Your task to perform on an android device: View the shopping cart on walmart.com. Image 0: 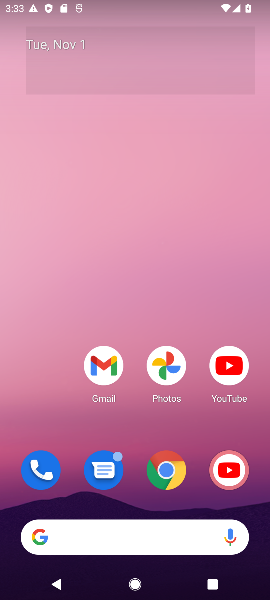
Step 0: click (168, 476)
Your task to perform on an android device: View the shopping cart on walmart.com. Image 1: 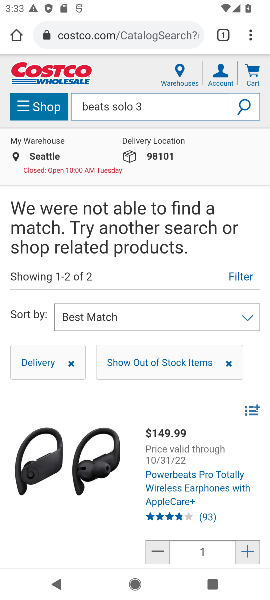
Step 1: click (153, 34)
Your task to perform on an android device: View the shopping cart on walmart.com. Image 2: 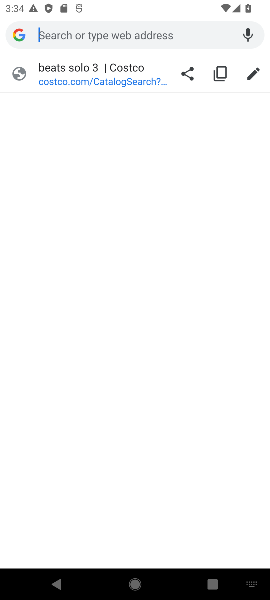
Step 2: type "walmart"
Your task to perform on an android device: View the shopping cart on walmart.com. Image 3: 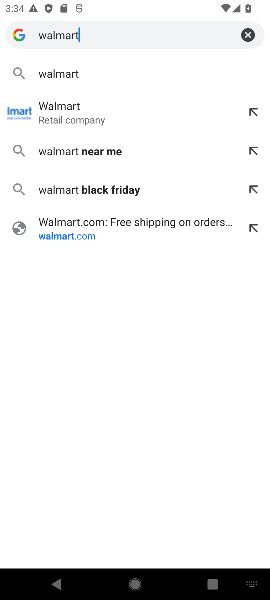
Step 3: click (79, 72)
Your task to perform on an android device: View the shopping cart on walmart.com. Image 4: 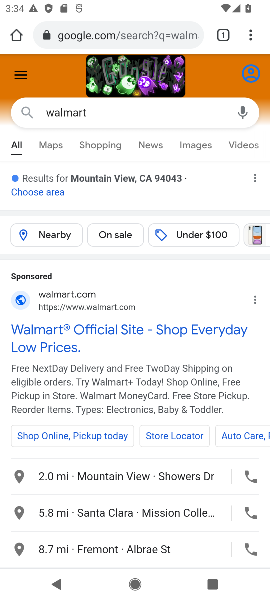
Step 4: drag from (107, 360) to (10, 113)
Your task to perform on an android device: View the shopping cart on walmart.com. Image 5: 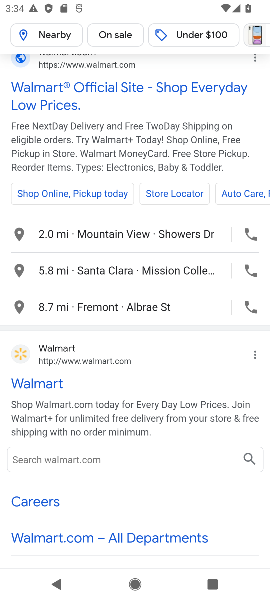
Step 5: click (36, 383)
Your task to perform on an android device: View the shopping cart on walmart.com. Image 6: 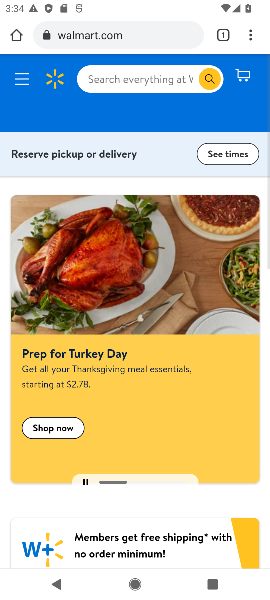
Step 6: click (244, 76)
Your task to perform on an android device: View the shopping cart on walmart.com. Image 7: 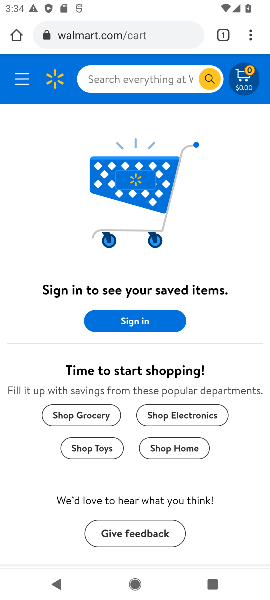
Step 7: task complete